Your task to perform on an android device: Open privacy settings Image 0: 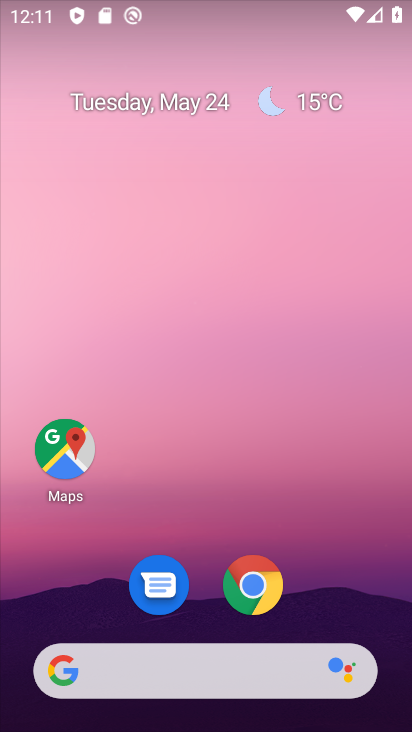
Step 0: drag from (236, 422) to (236, 35)
Your task to perform on an android device: Open privacy settings Image 1: 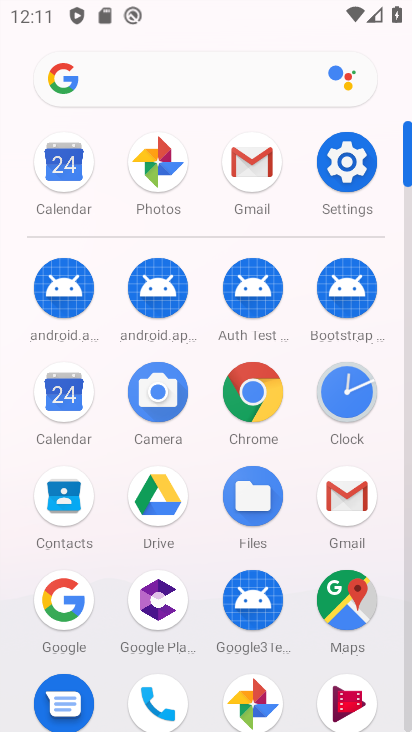
Step 1: click (340, 164)
Your task to perform on an android device: Open privacy settings Image 2: 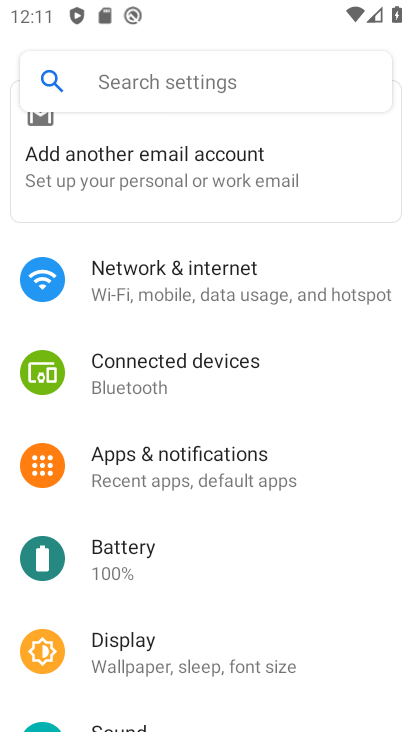
Step 2: drag from (225, 588) to (252, 87)
Your task to perform on an android device: Open privacy settings Image 3: 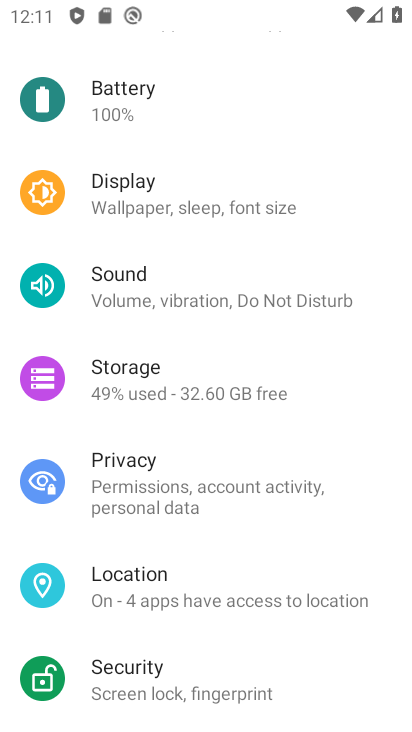
Step 3: click (216, 466)
Your task to perform on an android device: Open privacy settings Image 4: 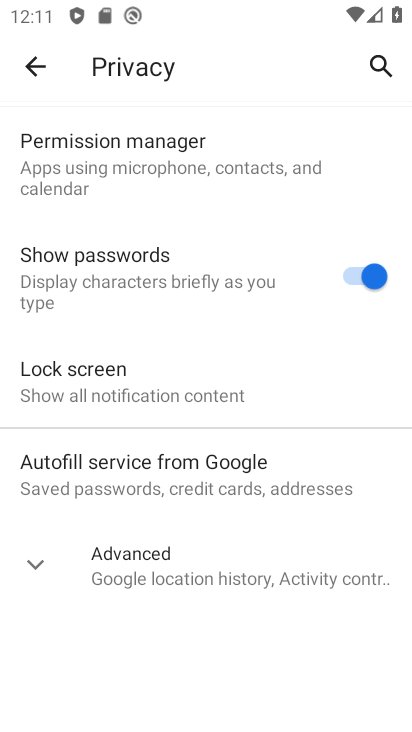
Step 4: click (33, 559)
Your task to perform on an android device: Open privacy settings Image 5: 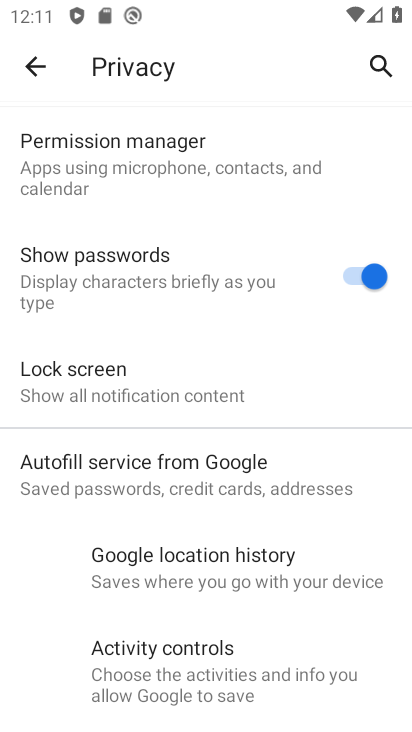
Step 5: task complete